Your task to perform on an android device: Set the phone to "Do not disturb". Image 0: 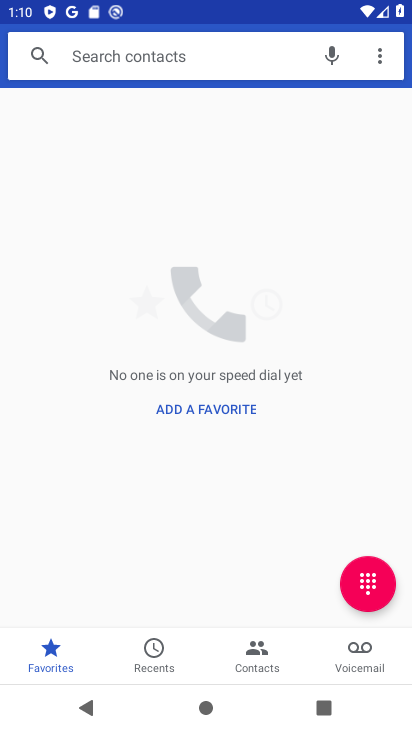
Step 0: press home button
Your task to perform on an android device: Set the phone to "Do not disturb". Image 1: 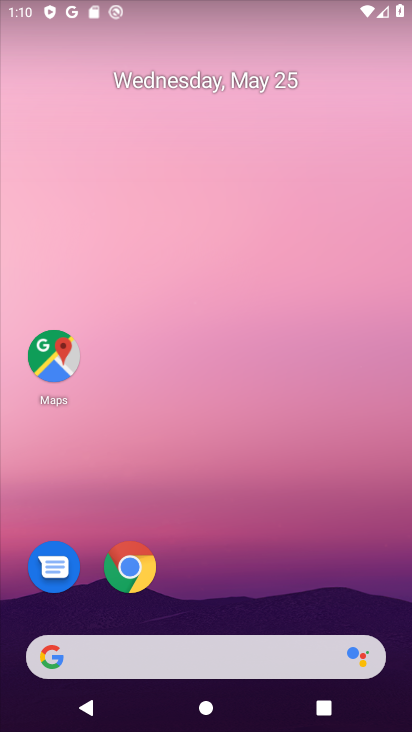
Step 1: drag from (234, 591) to (232, 91)
Your task to perform on an android device: Set the phone to "Do not disturb". Image 2: 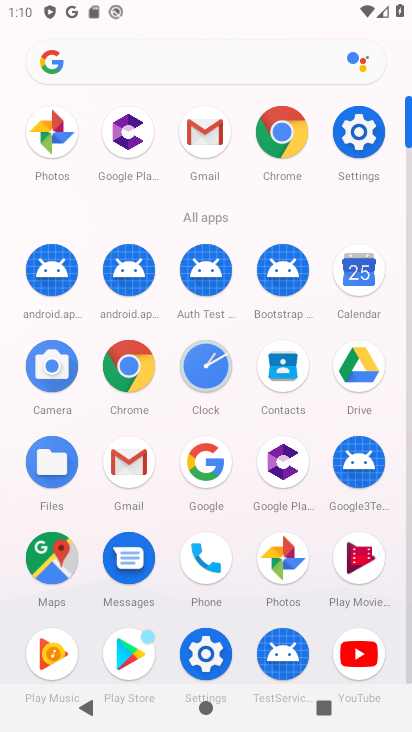
Step 2: click (366, 118)
Your task to perform on an android device: Set the phone to "Do not disturb". Image 3: 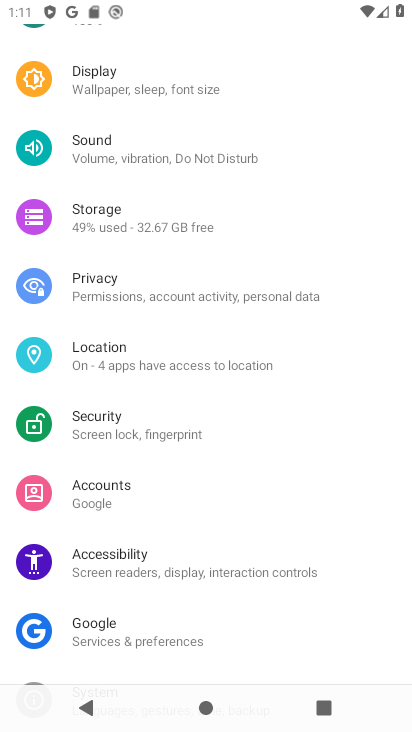
Step 3: click (196, 153)
Your task to perform on an android device: Set the phone to "Do not disturb". Image 4: 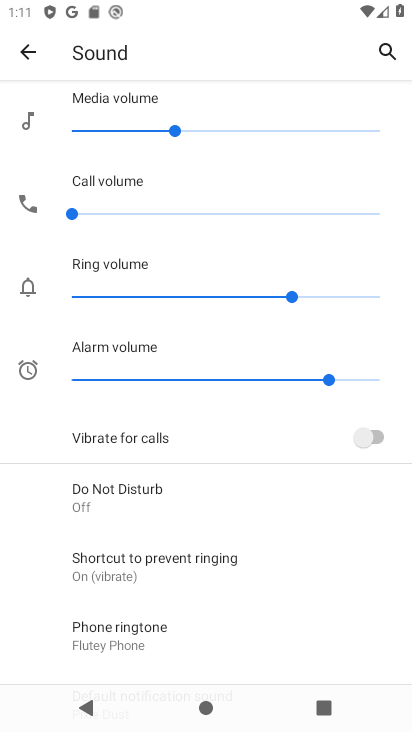
Step 4: click (137, 491)
Your task to perform on an android device: Set the phone to "Do not disturb". Image 5: 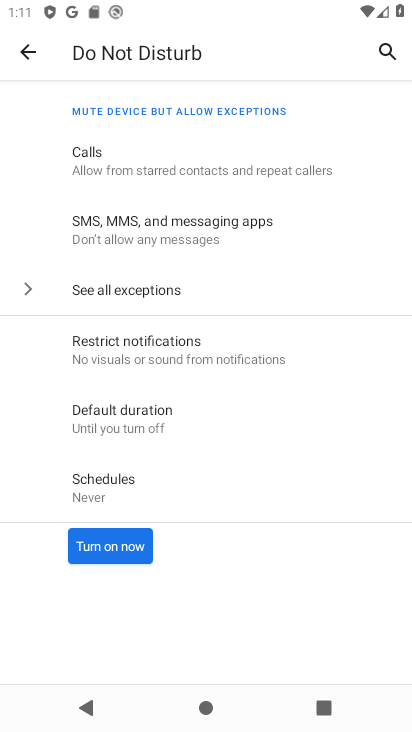
Step 5: click (96, 549)
Your task to perform on an android device: Set the phone to "Do not disturb". Image 6: 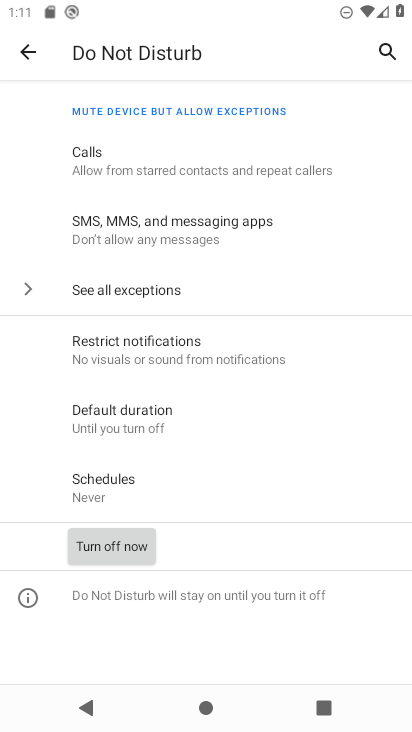
Step 6: task complete